Your task to perform on an android device: turn vacation reply on in the gmail app Image 0: 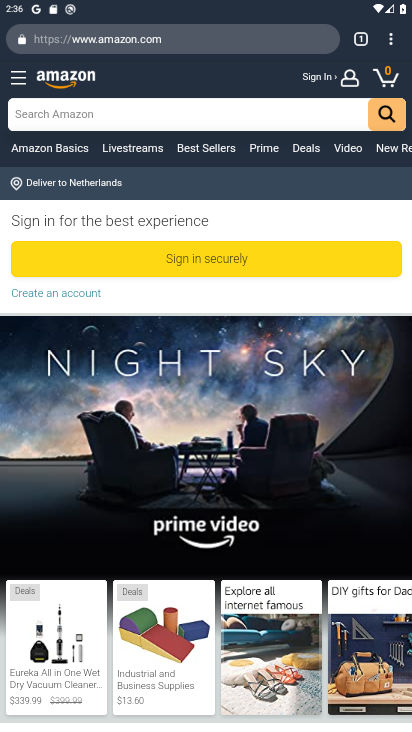
Step 0: press home button
Your task to perform on an android device: turn vacation reply on in the gmail app Image 1: 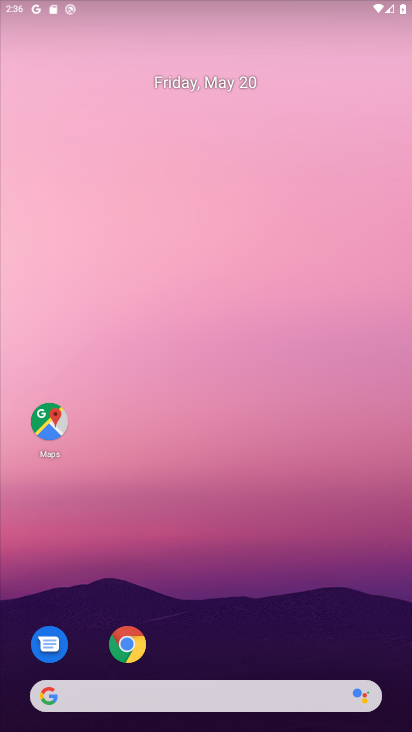
Step 1: drag from (129, 439) to (138, 152)
Your task to perform on an android device: turn vacation reply on in the gmail app Image 2: 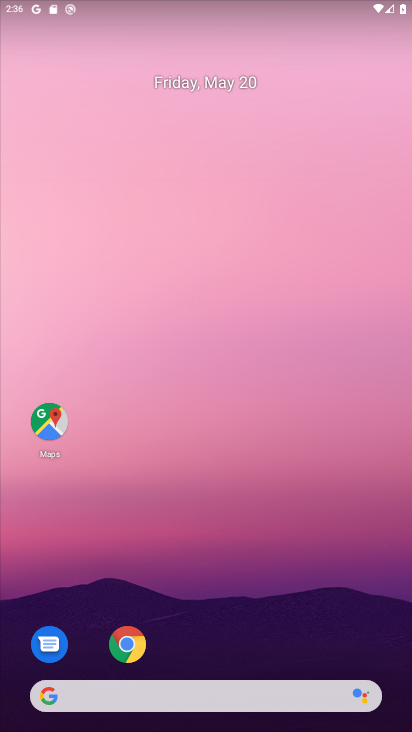
Step 2: drag from (179, 573) to (206, 136)
Your task to perform on an android device: turn vacation reply on in the gmail app Image 3: 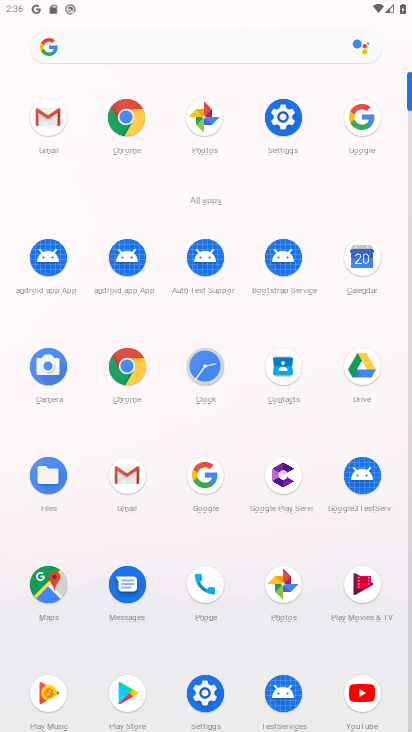
Step 3: click (137, 479)
Your task to perform on an android device: turn vacation reply on in the gmail app Image 4: 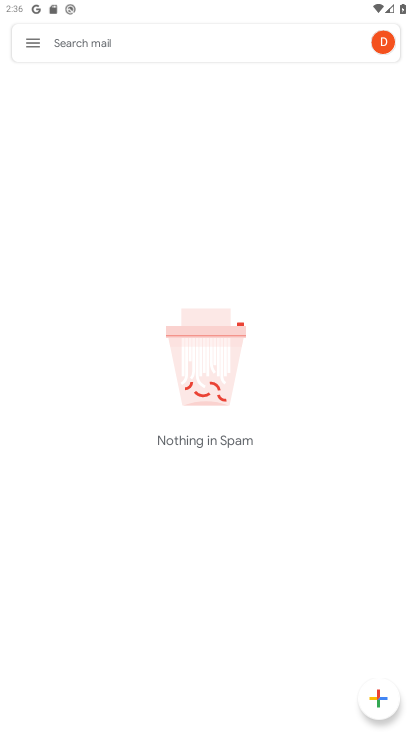
Step 4: click (36, 45)
Your task to perform on an android device: turn vacation reply on in the gmail app Image 5: 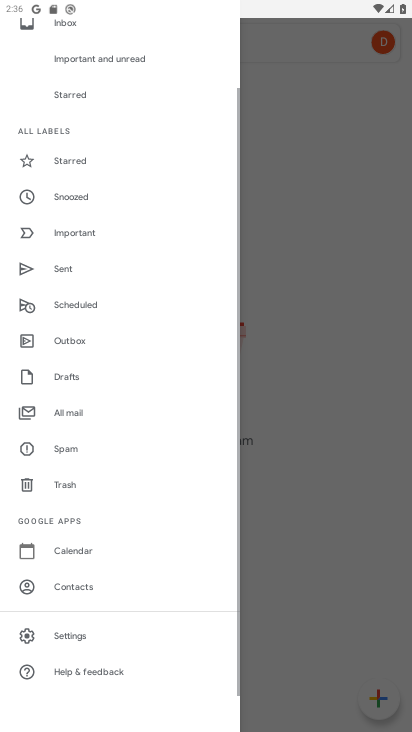
Step 5: click (62, 631)
Your task to perform on an android device: turn vacation reply on in the gmail app Image 6: 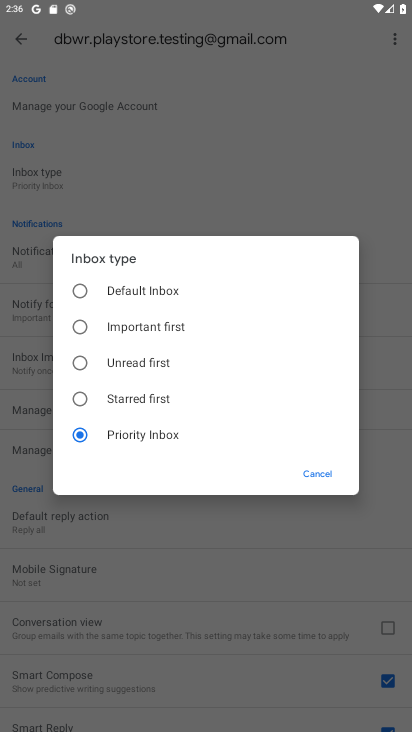
Step 6: press back button
Your task to perform on an android device: turn vacation reply on in the gmail app Image 7: 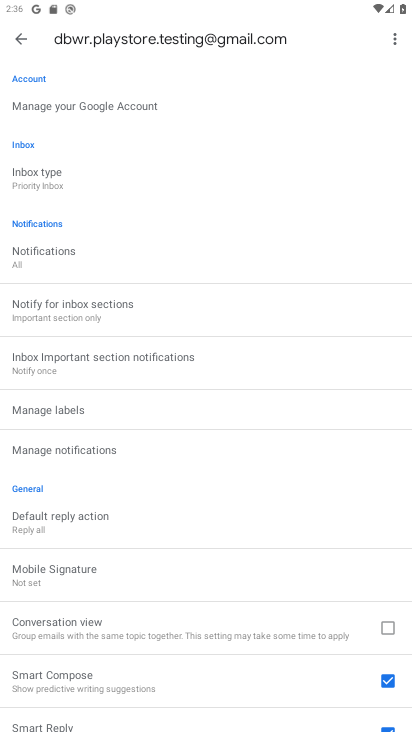
Step 7: drag from (187, 658) to (207, 338)
Your task to perform on an android device: turn vacation reply on in the gmail app Image 8: 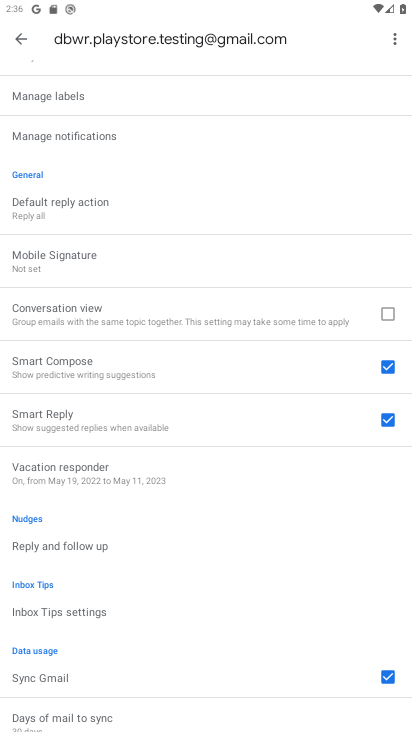
Step 8: click (208, 486)
Your task to perform on an android device: turn vacation reply on in the gmail app Image 9: 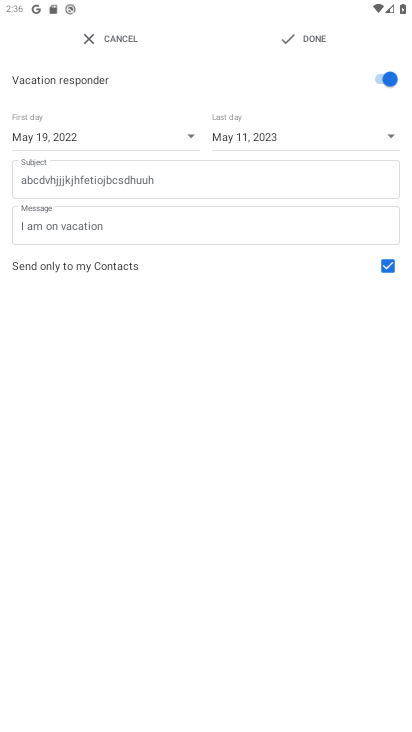
Step 9: click (290, 38)
Your task to perform on an android device: turn vacation reply on in the gmail app Image 10: 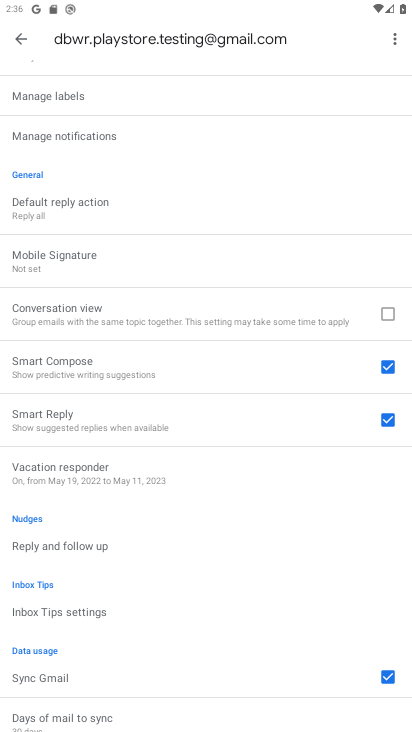
Step 10: task complete